Your task to perform on an android device: Open display settings Image 0: 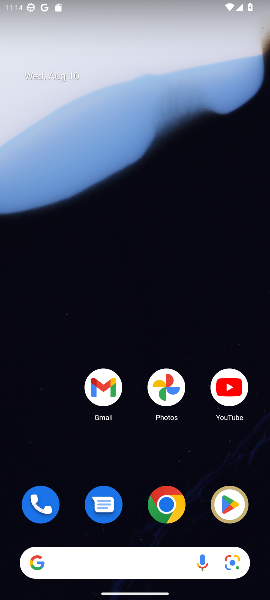
Step 0: press home button
Your task to perform on an android device: Open display settings Image 1: 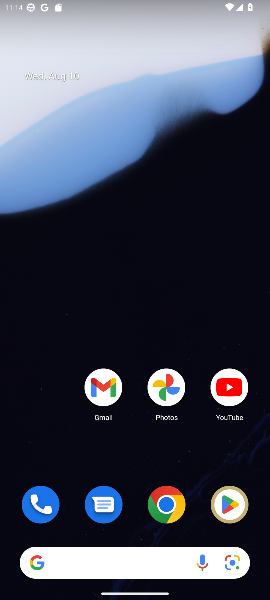
Step 1: drag from (65, 444) to (74, 83)
Your task to perform on an android device: Open display settings Image 2: 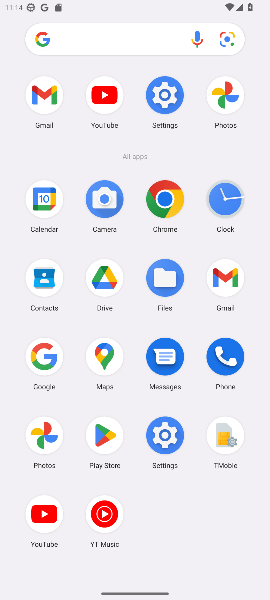
Step 2: click (171, 95)
Your task to perform on an android device: Open display settings Image 3: 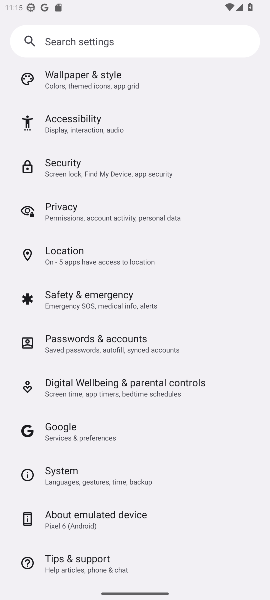
Step 3: drag from (131, 103) to (130, 347)
Your task to perform on an android device: Open display settings Image 4: 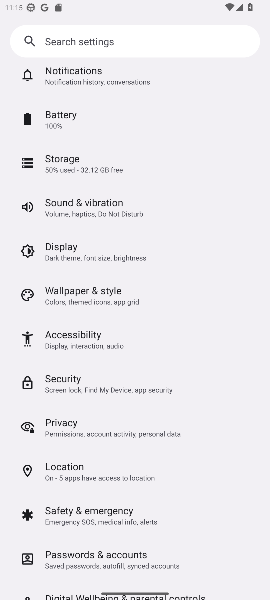
Step 4: click (50, 247)
Your task to perform on an android device: Open display settings Image 5: 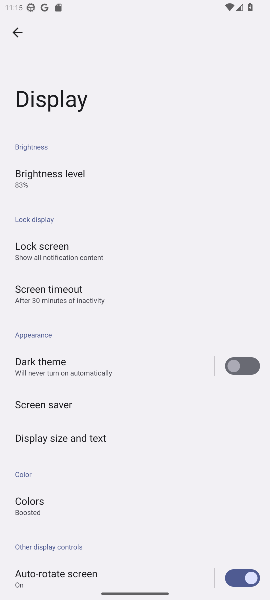
Step 5: task complete